Your task to perform on an android device: Find coffee shops on Maps Image 0: 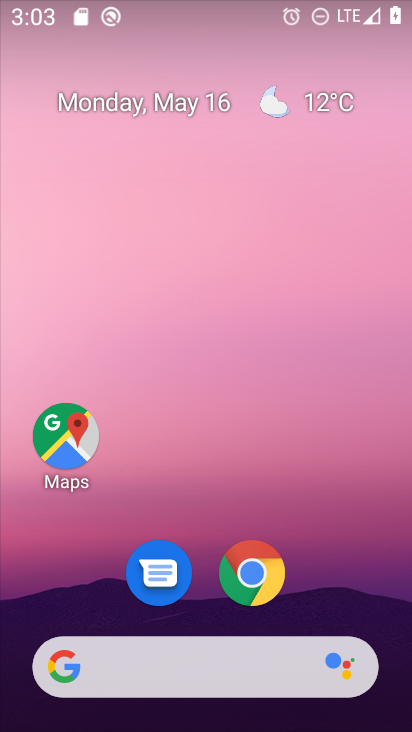
Step 0: click (74, 441)
Your task to perform on an android device: Find coffee shops on Maps Image 1: 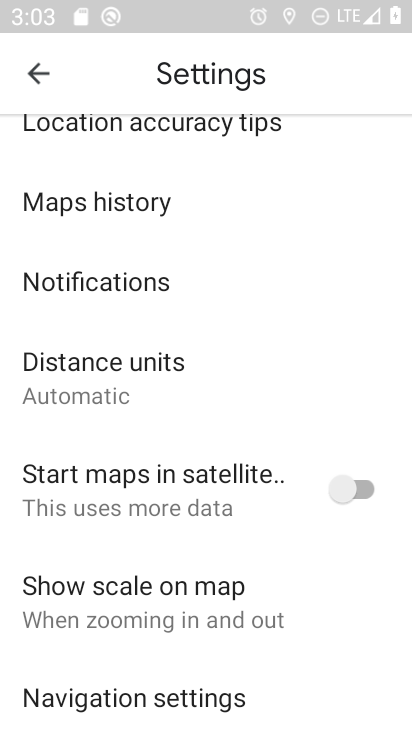
Step 1: click (50, 76)
Your task to perform on an android device: Find coffee shops on Maps Image 2: 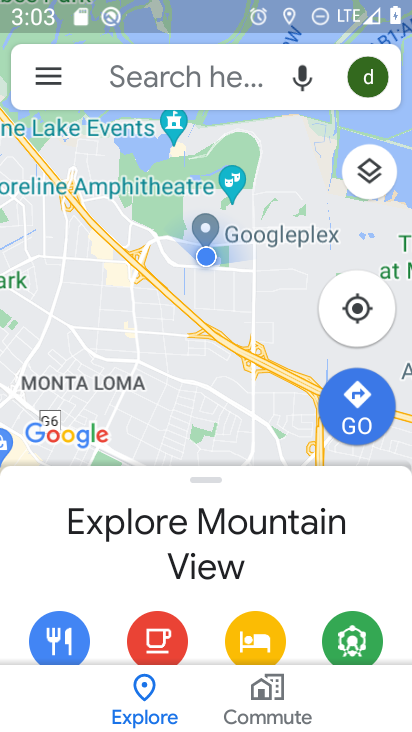
Step 2: click (140, 76)
Your task to perform on an android device: Find coffee shops on Maps Image 3: 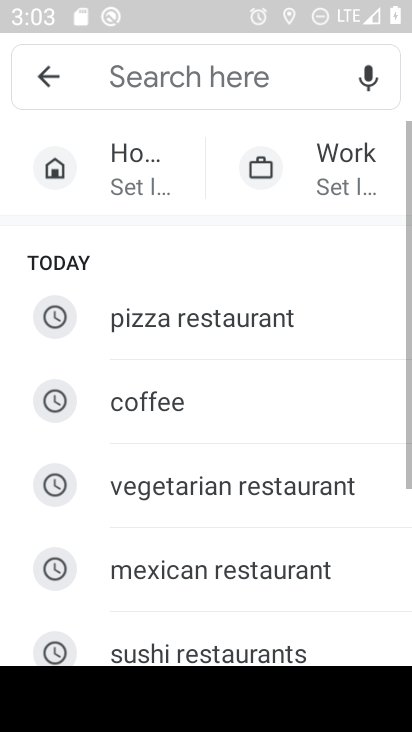
Step 3: click (214, 414)
Your task to perform on an android device: Find coffee shops on Maps Image 4: 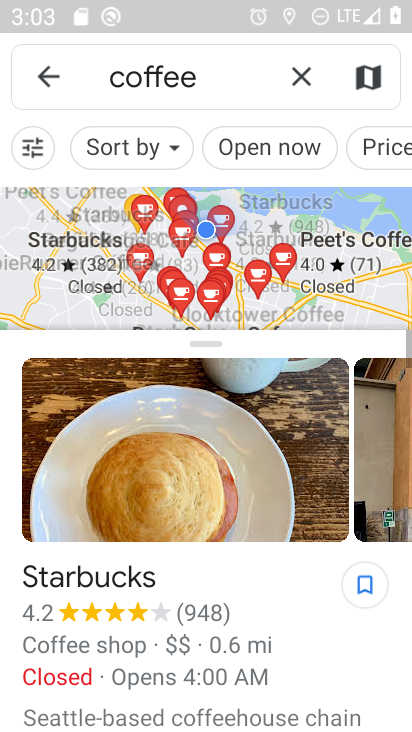
Step 4: task complete